Your task to perform on an android device: change the clock style Image 0: 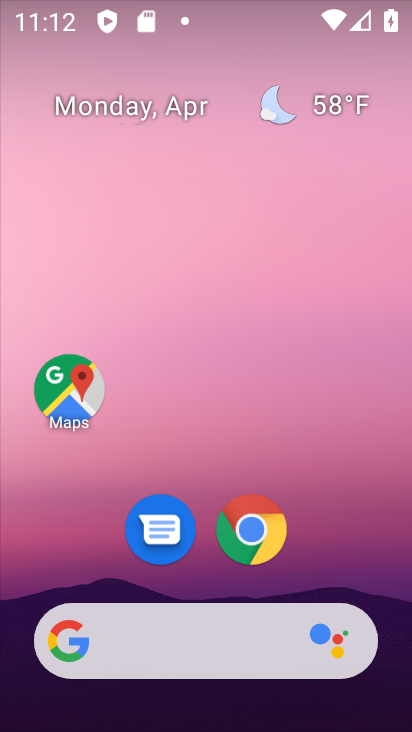
Step 0: drag from (381, 596) to (264, 46)
Your task to perform on an android device: change the clock style Image 1: 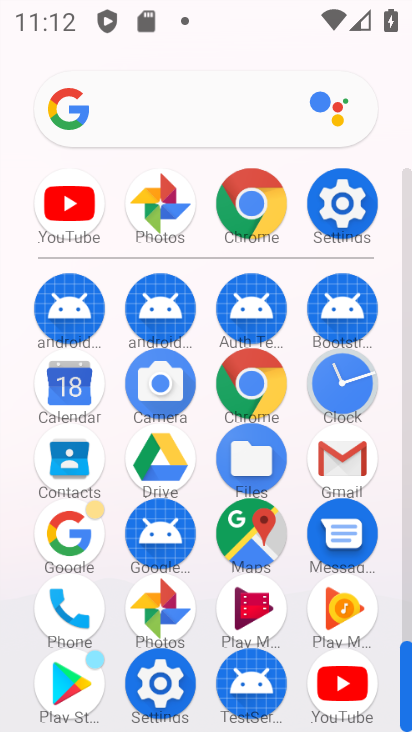
Step 1: click (352, 371)
Your task to perform on an android device: change the clock style Image 2: 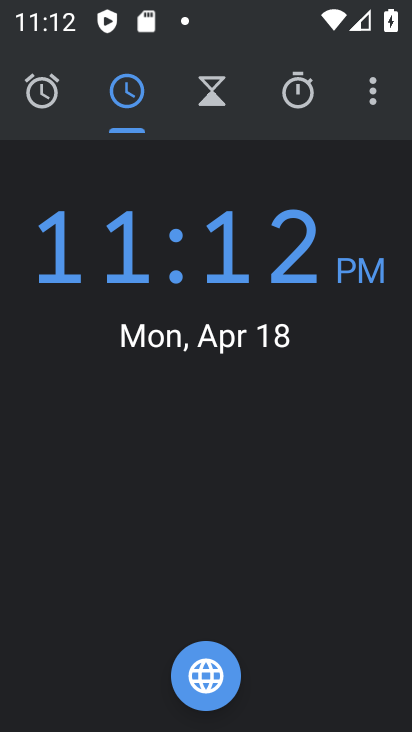
Step 2: click (371, 87)
Your task to perform on an android device: change the clock style Image 3: 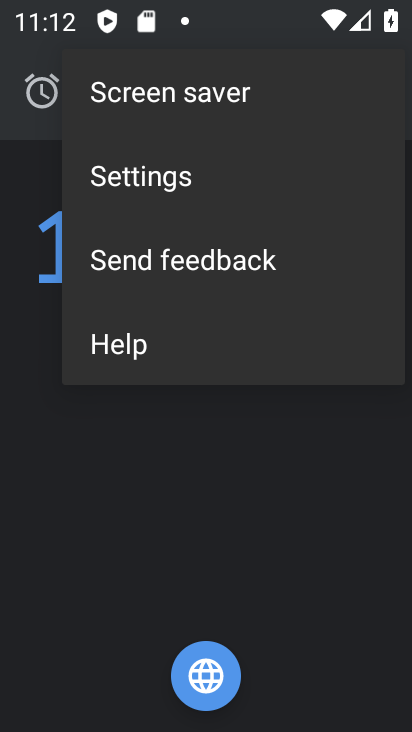
Step 3: click (175, 179)
Your task to perform on an android device: change the clock style Image 4: 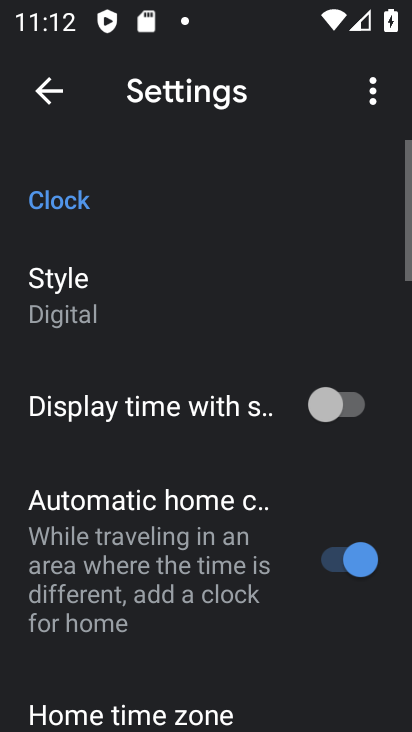
Step 4: click (198, 293)
Your task to perform on an android device: change the clock style Image 5: 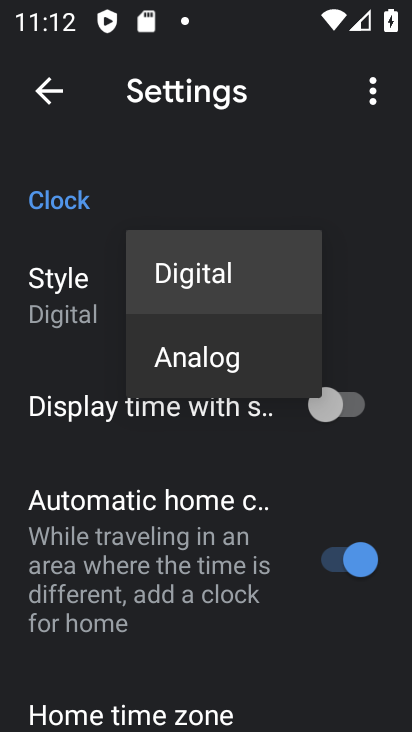
Step 5: click (239, 362)
Your task to perform on an android device: change the clock style Image 6: 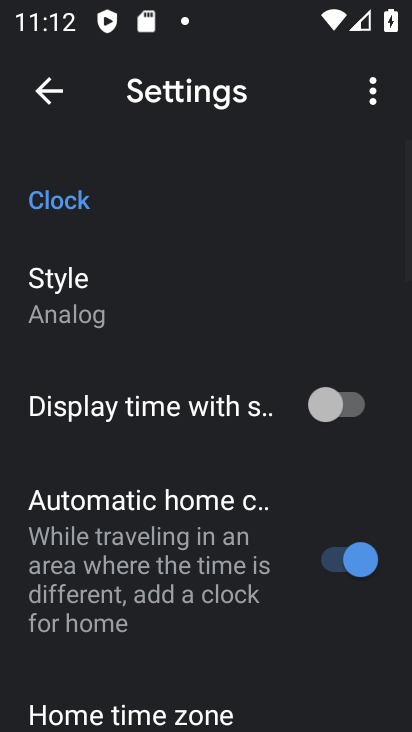
Step 6: task complete